Your task to perform on an android device: Open the phone app and click the voicemail tab. Image 0: 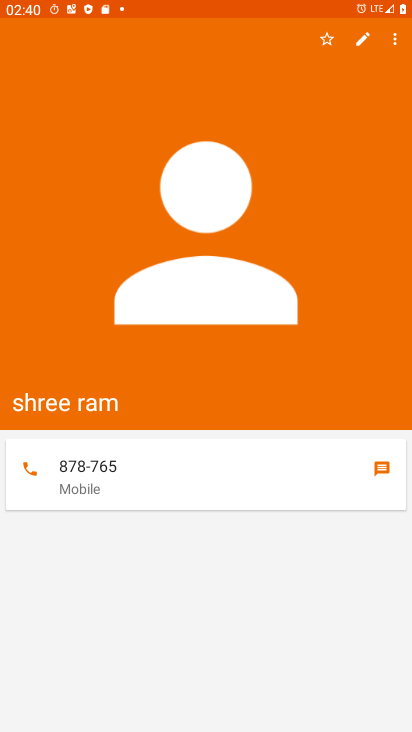
Step 0: press home button
Your task to perform on an android device: Open the phone app and click the voicemail tab. Image 1: 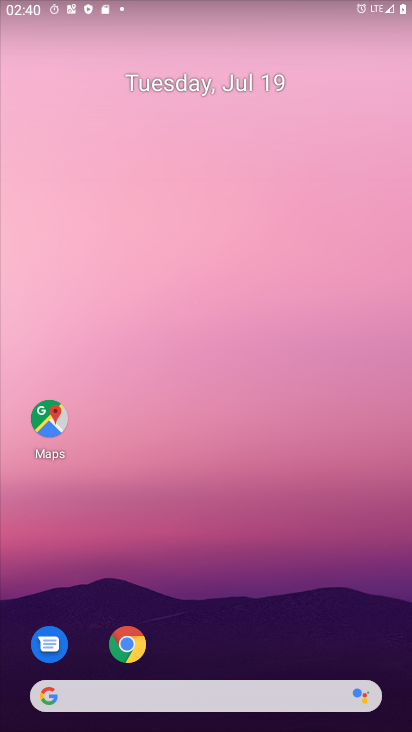
Step 1: drag from (233, 728) to (215, 172)
Your task to perform on an android device: Open the phone app and click the voicemail tab. Image 2: 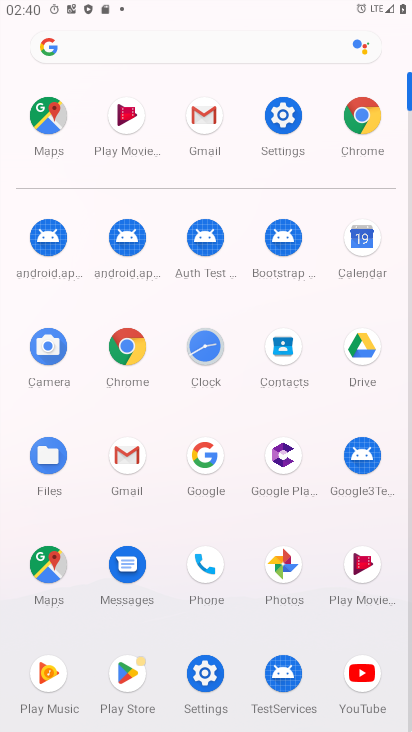
Step 2: click (207, 562)
Your task to perform on an android device: Open the phone app and click the voicemail tab. Image 3: 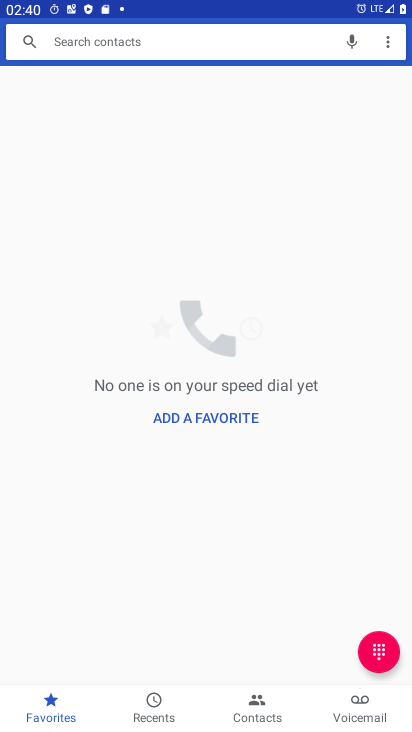
Step 3: click (364, 703)
Your task to perform on an android device: Open the phone app and click the voicemail tab. Image 4: 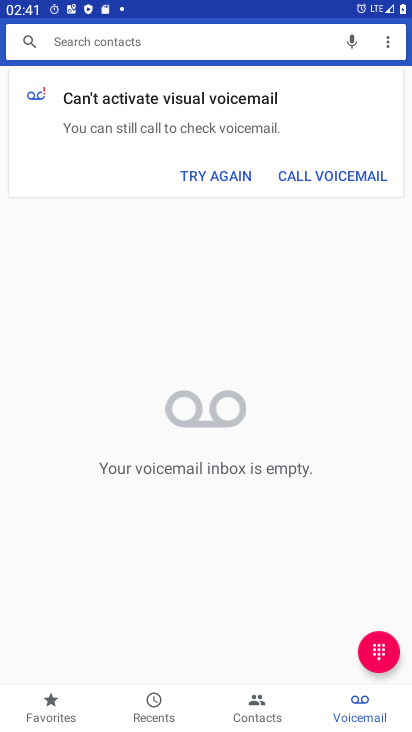
Step 4: task complete